Your task to perform on an android device: check google app version Image 0: 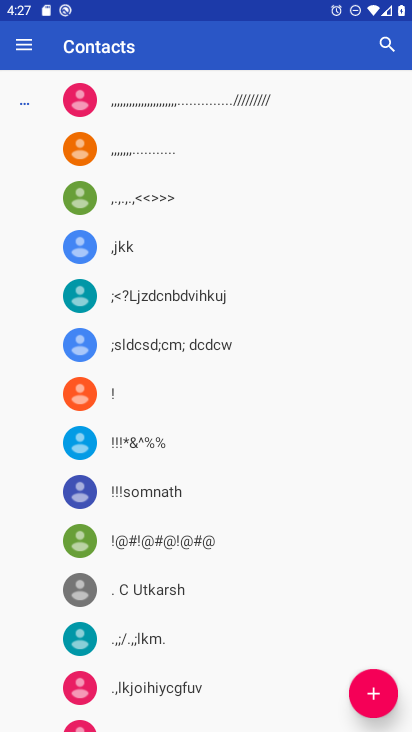
Step 0: press home button
Your task to perform on an android device: check google app version Image 1: 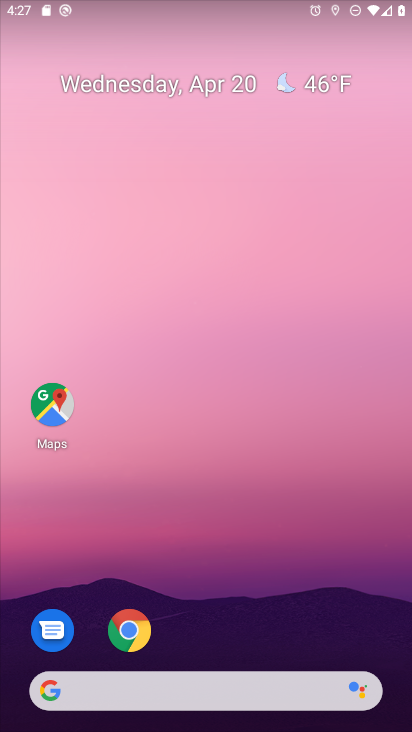
Step 1: drag from (264, 687) to (305, 6)
Your task to perform on an android device: check google app version Image 2: 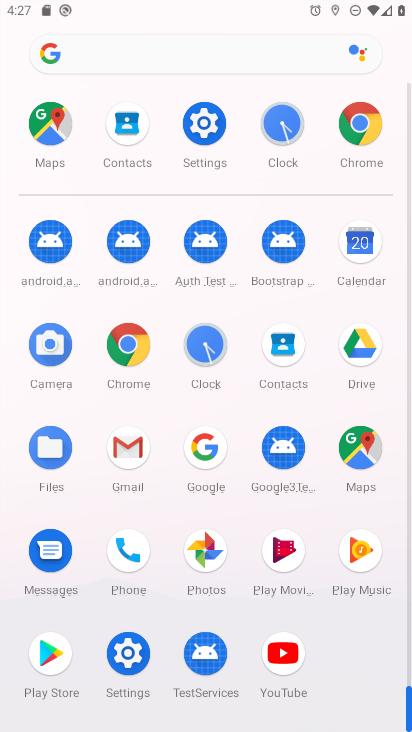
Step 2: click (126, 342)
Your task to perform on an android device: check google app version Image 3: 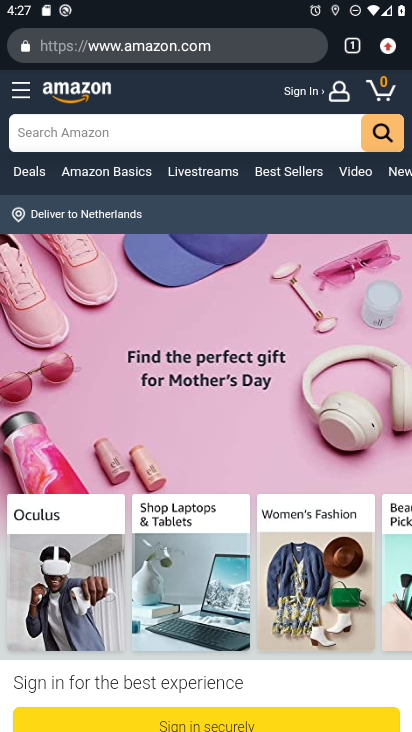
Step 3: click (385, 48)
Your task to perform on an android device: check google app version Image 4: 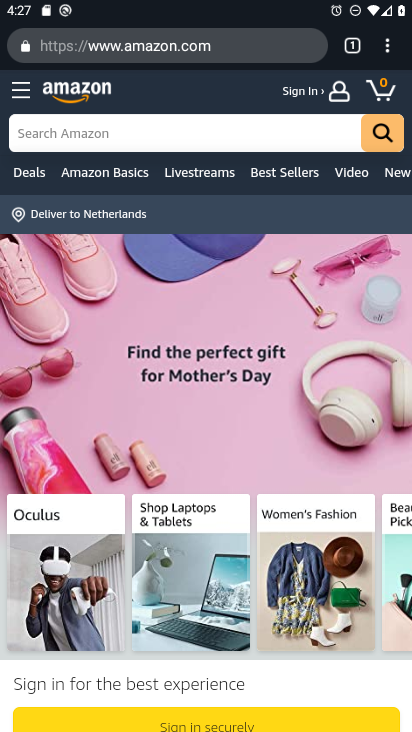
Step 4: click (396, 50)
Your task to perform on an android device: check google app version Image 5: 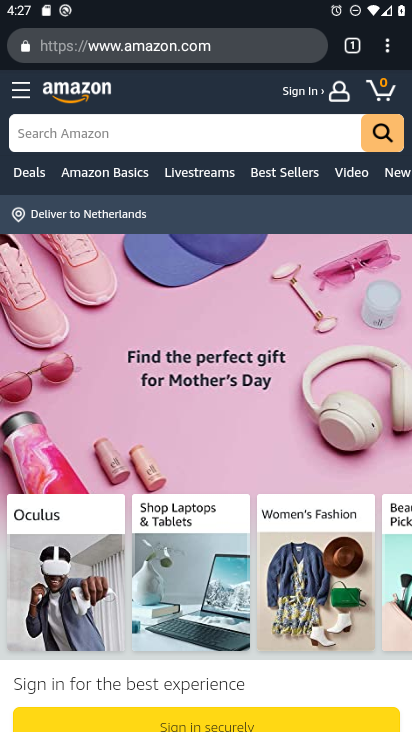
Step 5: click (391, 51)
Your task to perform on an android device: check google app version Image 6: 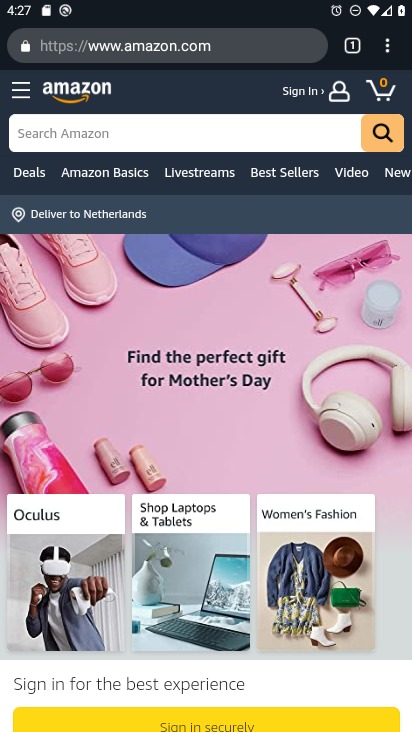
Step 6: drag from (388, 47) to (304, 646)
Your task to perform on an android device: check google app version Image 7: 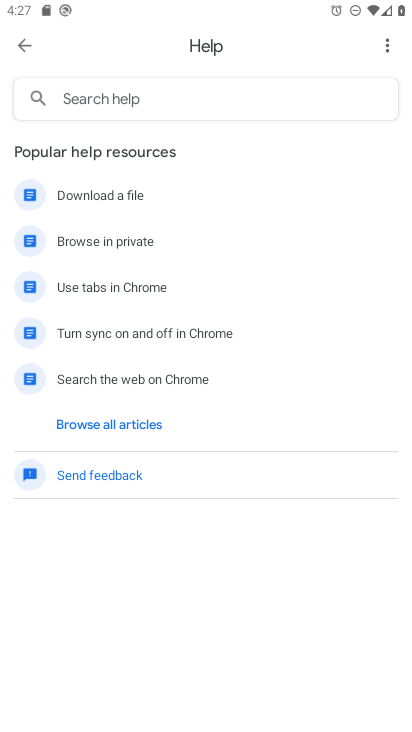
Step 7: click (383, 46)
Your task to perform on an android device: check google app version Image 8: 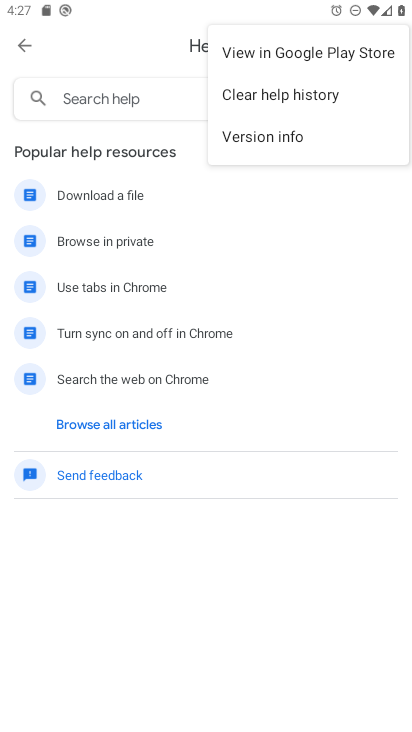
Step 8: click (295, 133)
Your task to perform on an android device: check google app version Image 9: 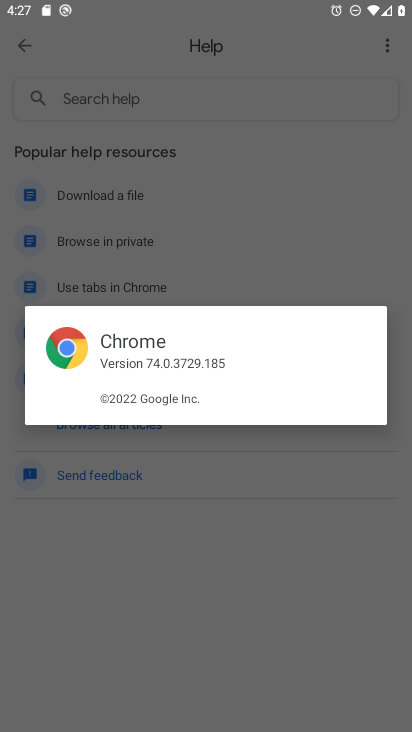
Step 9: task complete